Your task to perform on an android device: Check the weather Image 0: 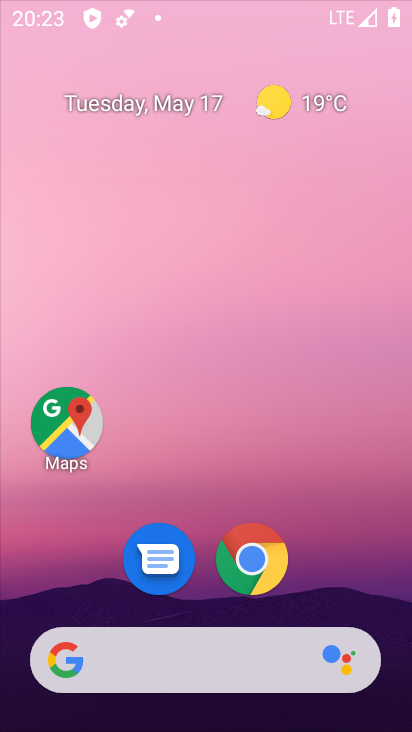
Step 0: click (244, 270)
Your task to perform on an android device: Check the weather Image 1: 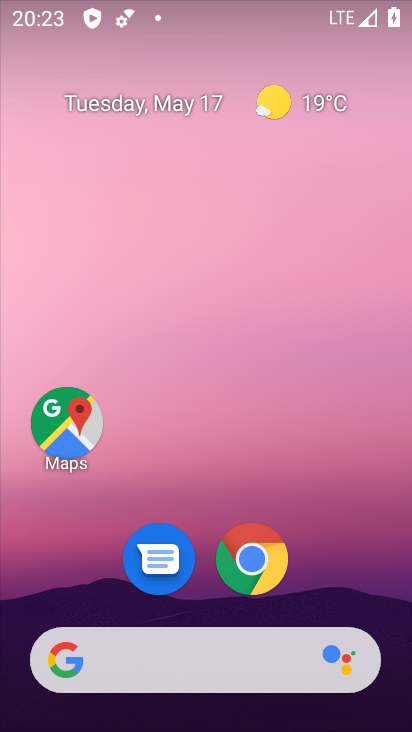
Step 1: drag from (198, 608) to (251, 368)
Your task to perform on an android device: Check the weather Image 2: 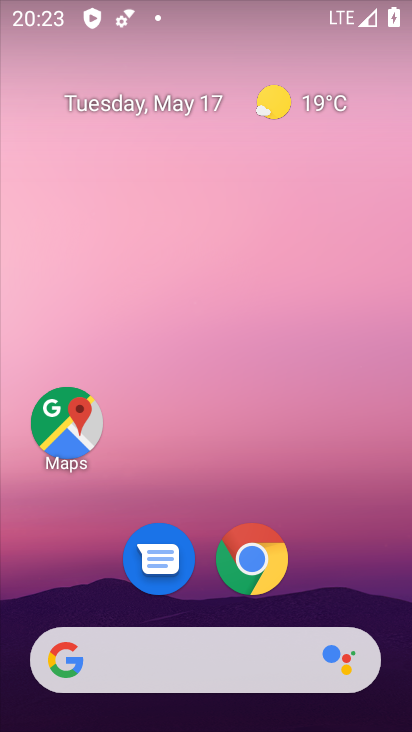
Step 2: click (172, 655)
Your task to perform on an android device: Check the weather Image 3: 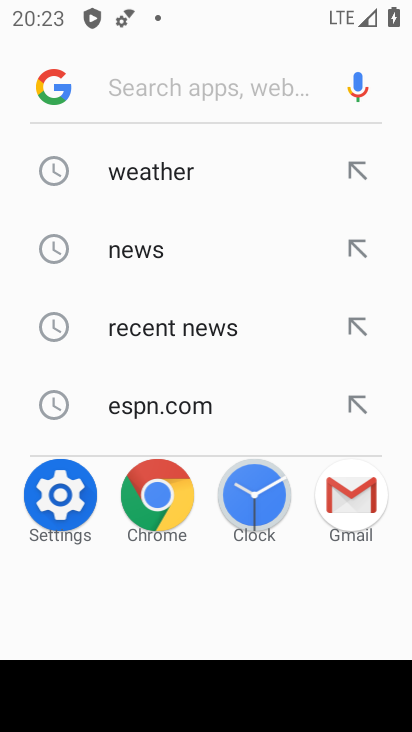
Step 3: click (137, 161)
Your task to perform on an android device: Check the weather Image 4: 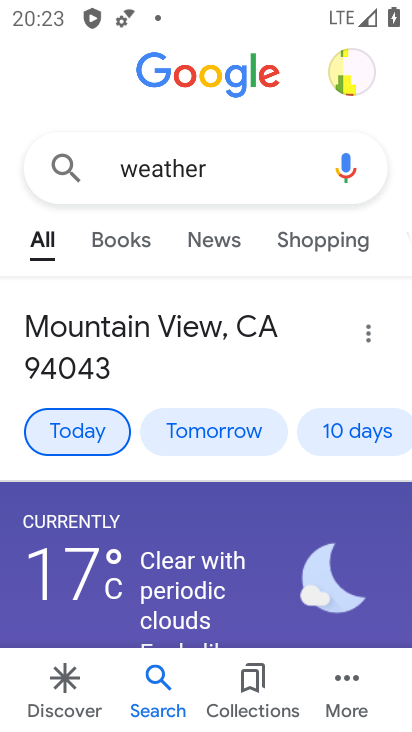
Step 4: task complete